Your task to perform on an android device: Open Google Chrome Image 0: 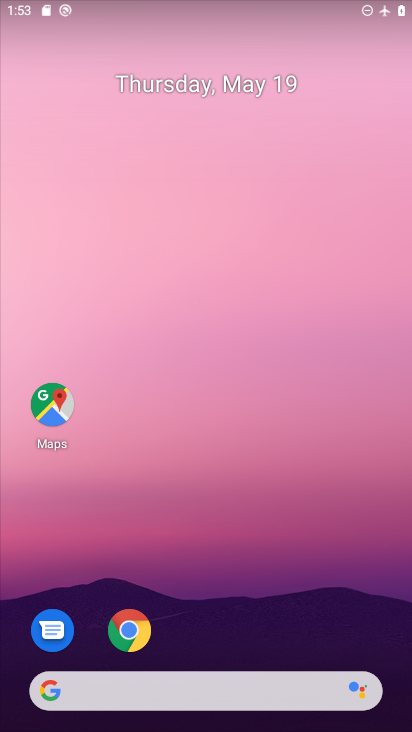
Step 0: drag from (115, 632) to (155, 632)
Your task to perform on an android device: Open Google Chrome Image 1: 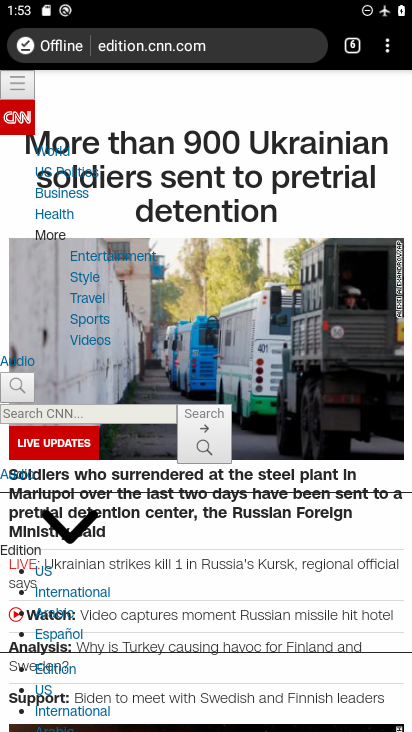
Step 1: task complete